Your task to perform on an android device: change notification settings in the gmail app Image 0: 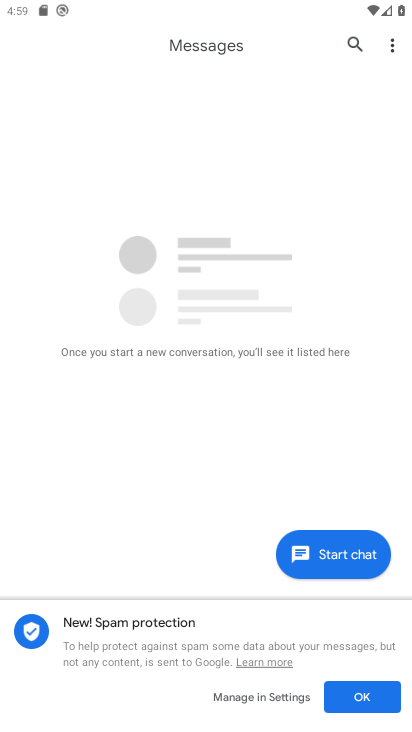
Step 0: drag from (305, 633) to (210, 308)
Your task to perform on an android device: change notification settings in the gmail app Image 1: 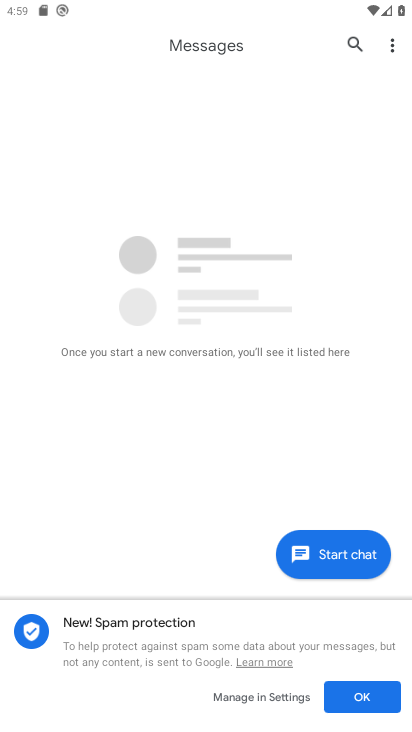
Step 1: press home button
Your task to perform on an android device: change notification settings in the gmail app Image 2: 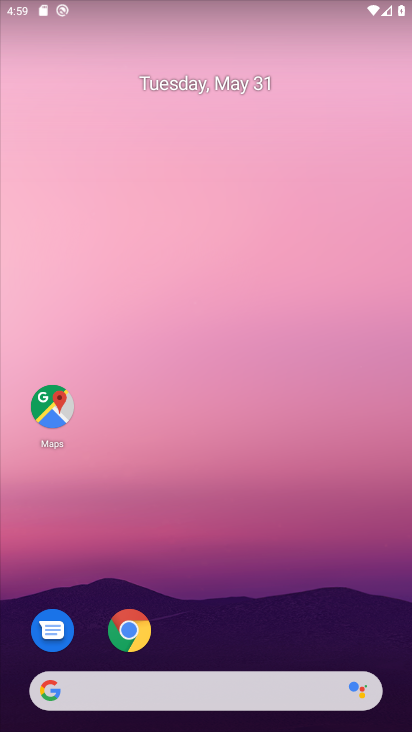
Step 2: drag from (240, 629) to (114, 69)
Your task to perform on an android device: change notification settings in the gmail app Image 3: 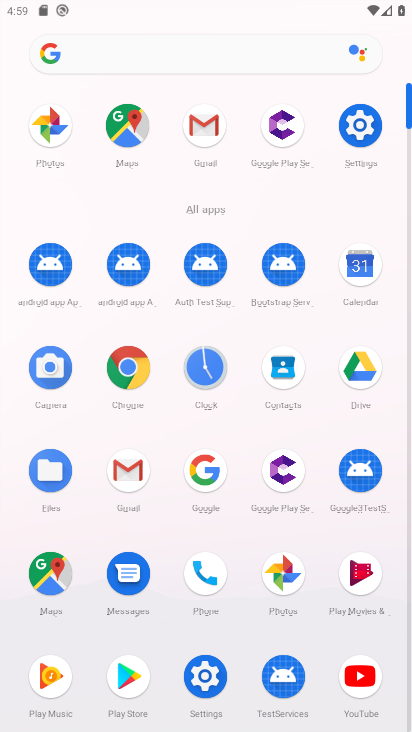
Step 3: click (144, 472)
Your task to perform on an android device: change notification settings in the gmail app Image 4: 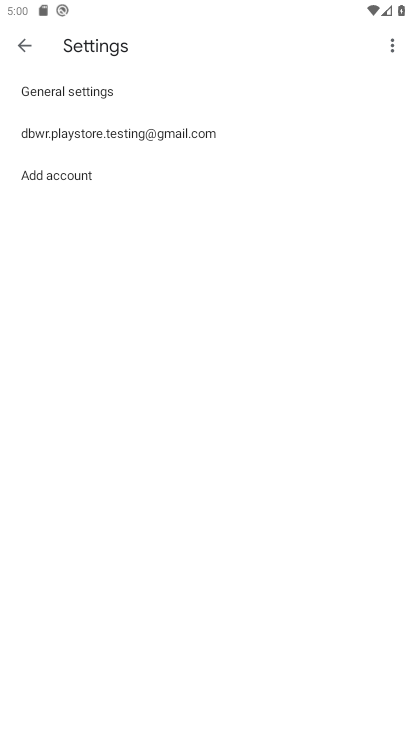
Step 4: click (94, 132)
Your task to perform on an android device: change notification settings in the gmail app Image 5: 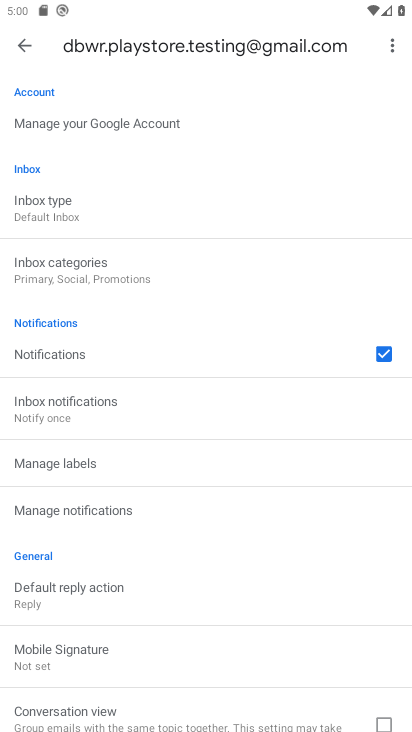
Step 5: click (77, 510)
Your task to perform on an android device: change notification settings in the gmail app Image 6: 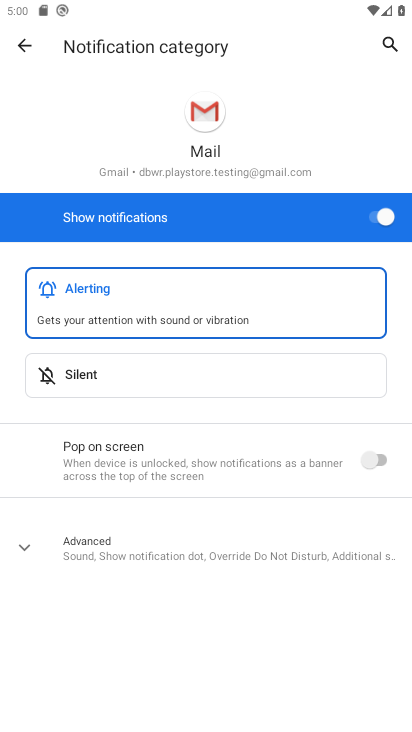
Step 6: click (190, 553)
Your task to perform on an android device: change notification settings in the gmail app Image 7: 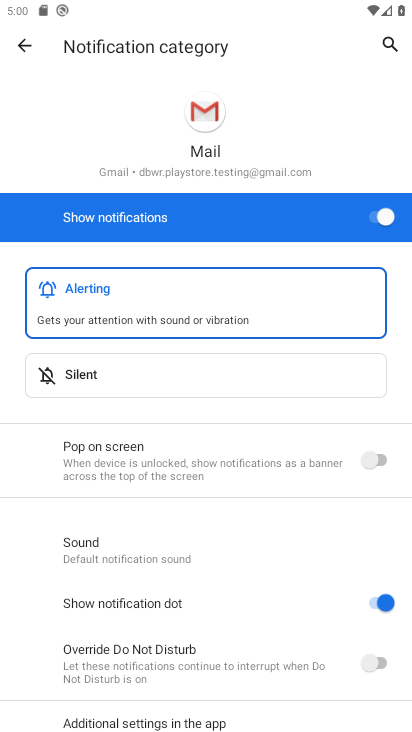
Step 7: click (370, 449)
Your task to perform on an android device: change notification settings in the gmail app Image 8: 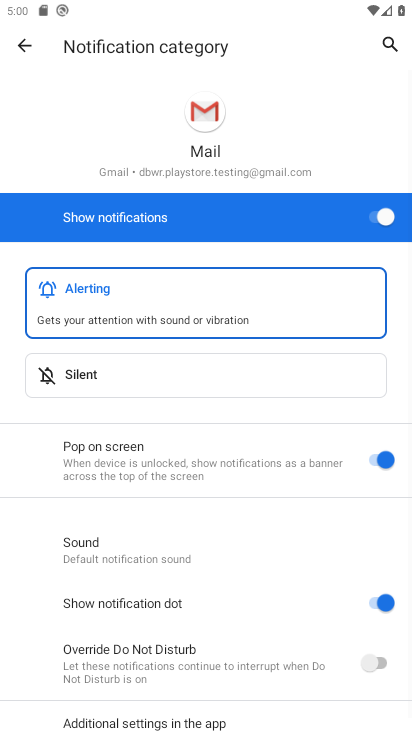
Step 8: task complete